Your task to perform on an android device: Go to internet settings Image 0: 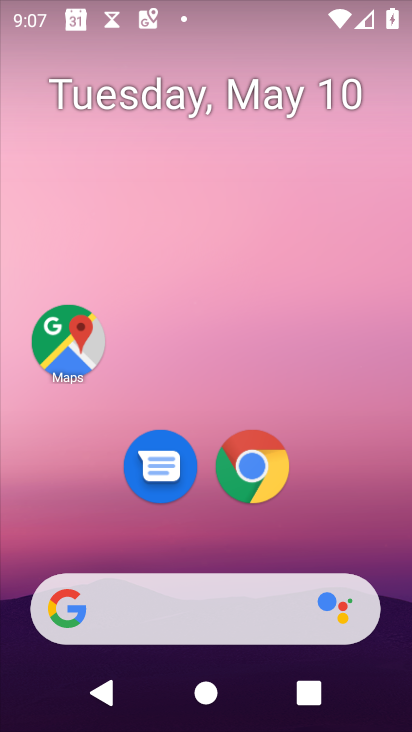
Step 0: drag from (286, 536) to (234, 131)
Your task to perform on an android device: Go to internet settings Image 1: 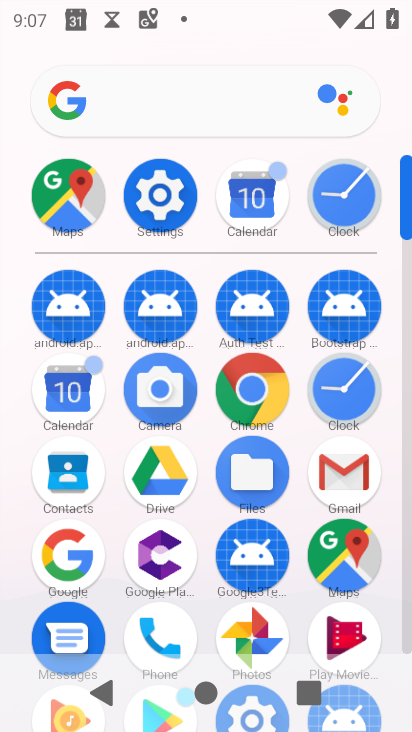
Step 1: drag from (242, 628) to (232, 432)
Your task to perform on an android device: Go to internet settings Image 2: 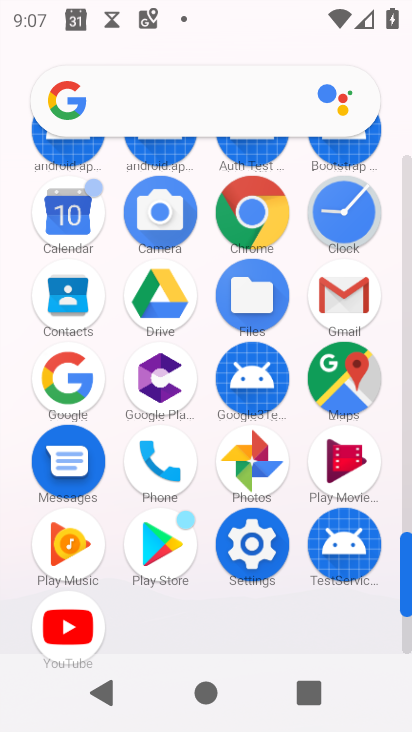
Step 2: click (242, 560)
Your task to perform on an android device: Go to internet settings Image 3: 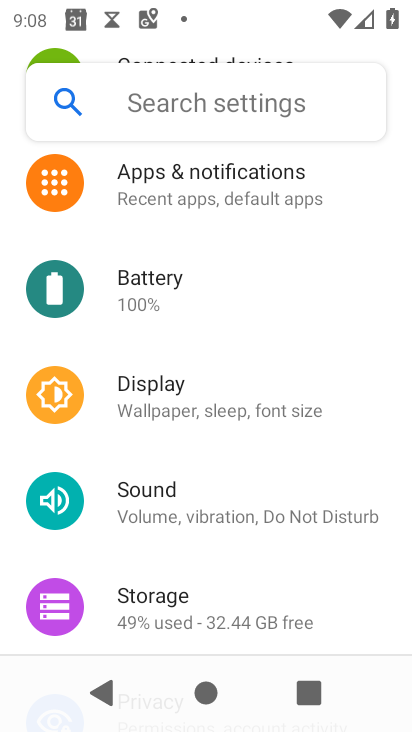
Step 3: drag from (223, 352) to (257, 510)
Your task to perform on an android device: Go to internet settings Image 4: 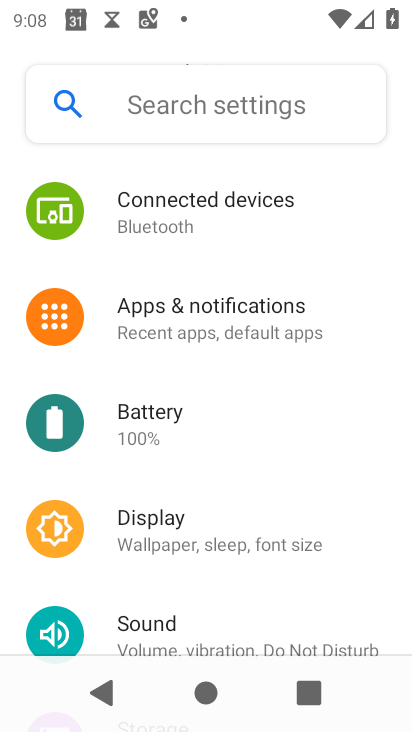
Step 4: drag from (231, 370) to (263, 484)
Your task to perform on an android device: Go to internet settings Image 5: 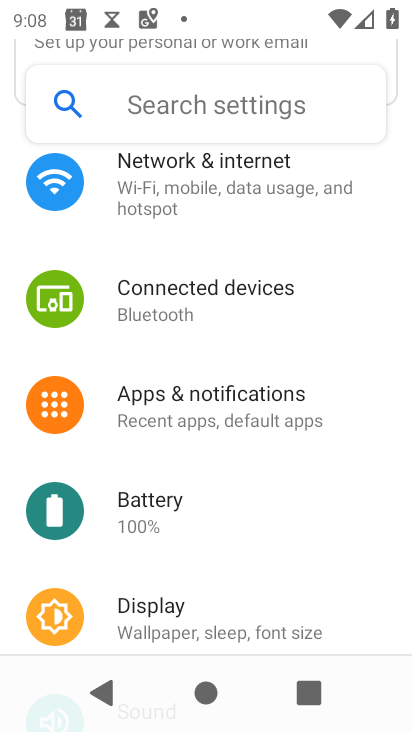
Step 5: click (205, 188)
Your task to perform on an android device: Go to internet settings Image 6: 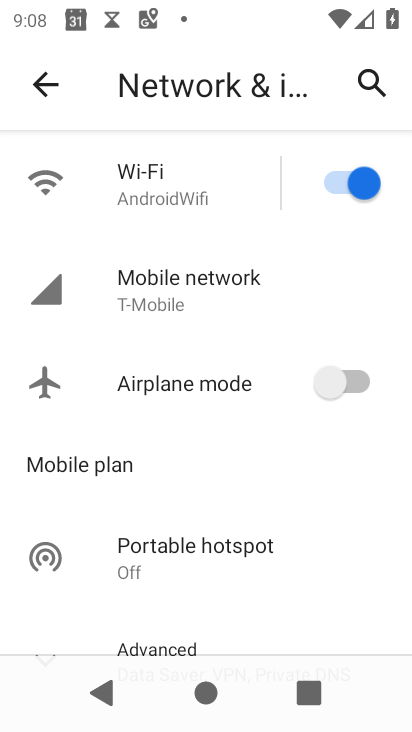
Step 6: click (156, 273)
Your task to perform on an android device: Go to internet settings Image 7: 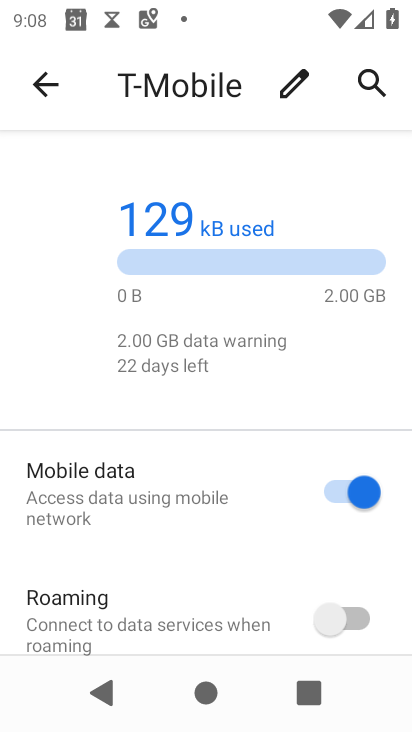
Step 7: task complete